Your task to perform on an android device: Open Chrome and go to settings Image 0: 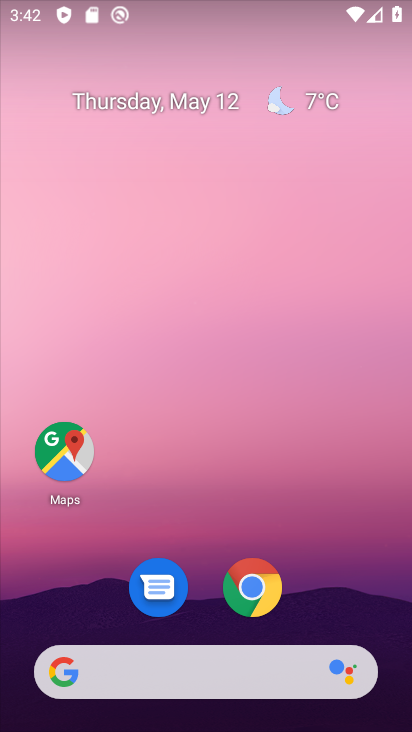
Step 0: click (262, 595)
Your task to perform on an android device: Open Chrome and go to settings Image 1: 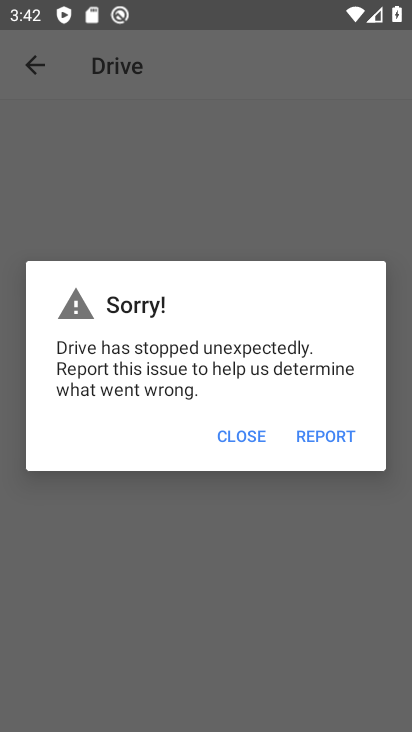
Step 1: press home button
Your task to perform on an android device: Open Chrome and go to settings Image 2: 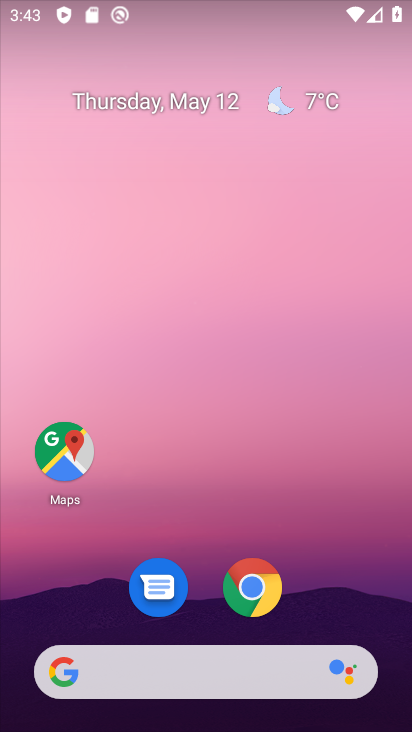
Step 2: click (254, 581)
Your task to perform on an android device: Open Chrome and go to settings Image 3: 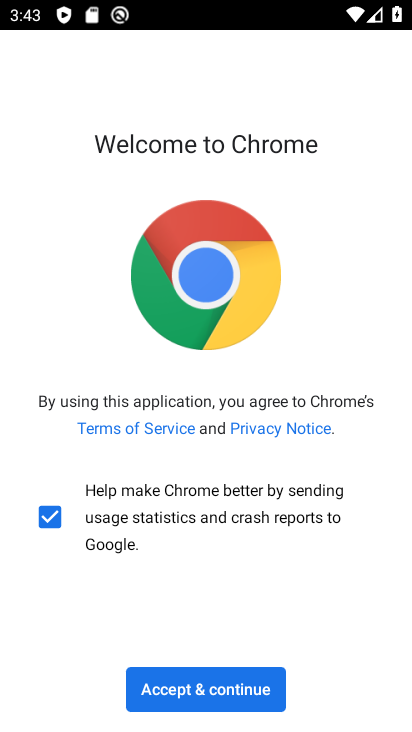
Step 3: click (210, 700)
Your task to perform on an android device: Open Chrome and go to settings Image 4: 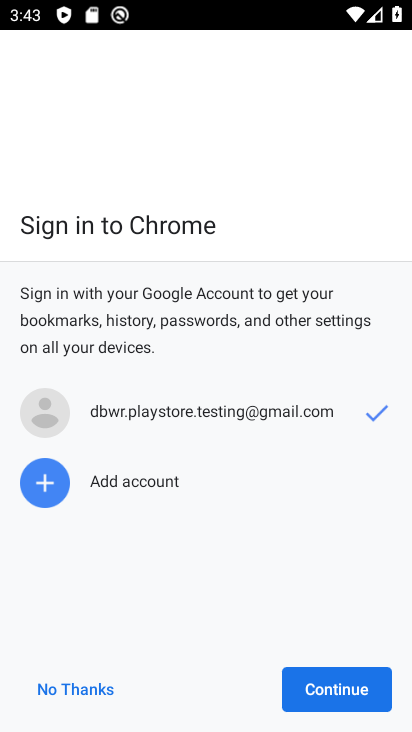
Step 4: click (345, 705)
Your task to perform on an android device: Open Chrome and go to settings Image 5: 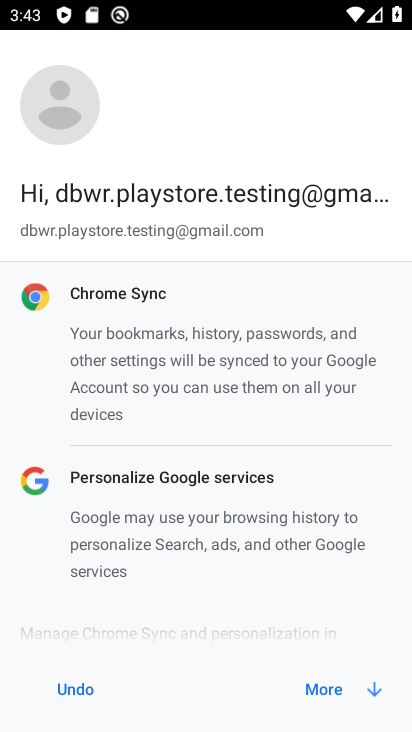
Step 5: click (344, 686)
Your task to perform on an android device: Open Chrome and go to settings Image 6: 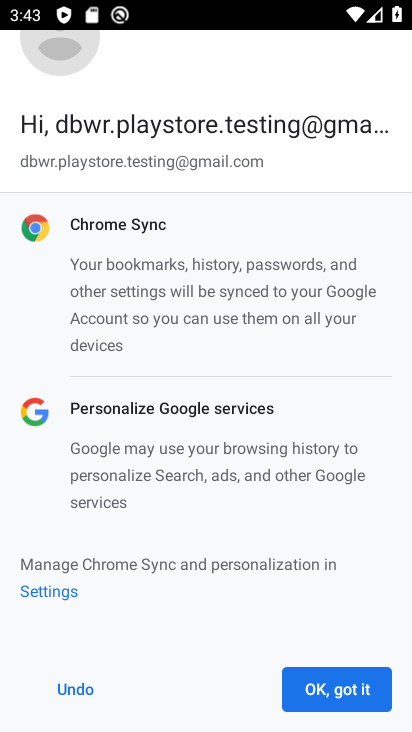
Step 6: click (344, 686)
Your task to perform on an android device: Open Chrome and go to settings Image 7: 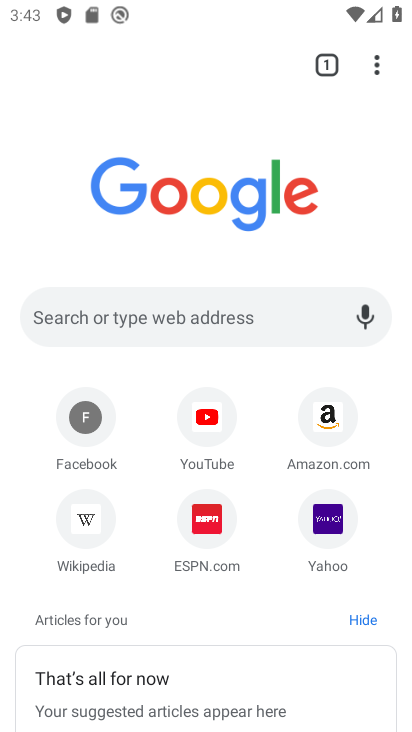
Step 7: task complete